Your task to perform on an android device: Go to Android settings Image 0: 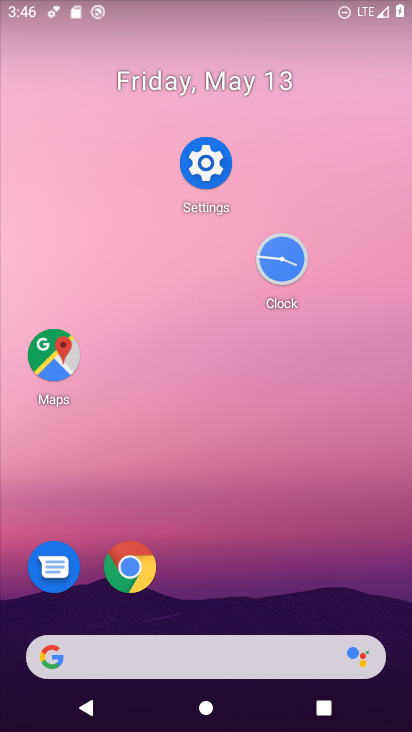
Step 0: click (192, 155)
Your task to perform on an android device: Go to Android settings Image 1: 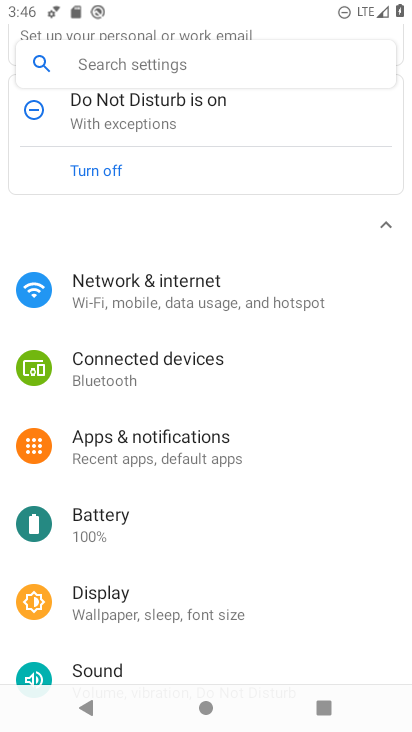
Step 1: task complete